Your task to perform on an android device: Set the phone to "Do not disturb". Image 0: 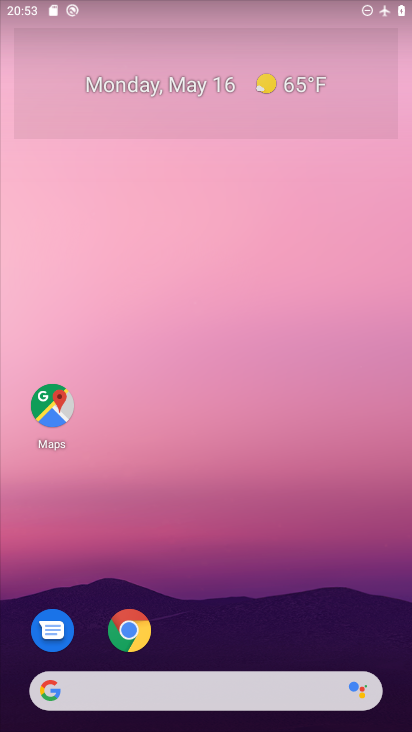
Step 0: drag from (210, 640) to (214, 126)
Your task to perform on an android device: Set the phone to "Do not disturb". Image 1: 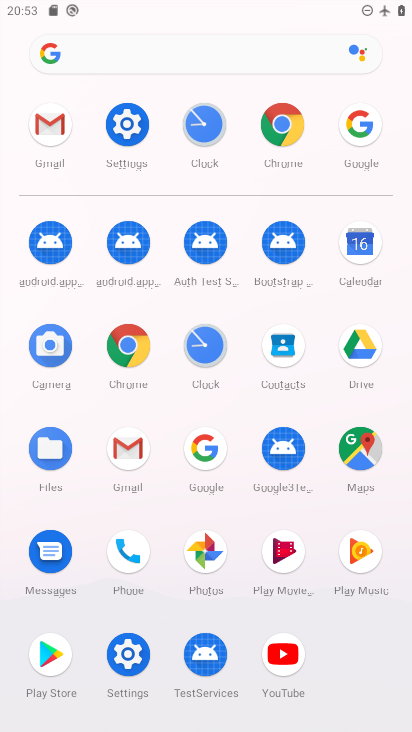
Step 1: click (140, 141)
Your task to perform on an android device: Set the phone to "Do not disturb". Image 2: 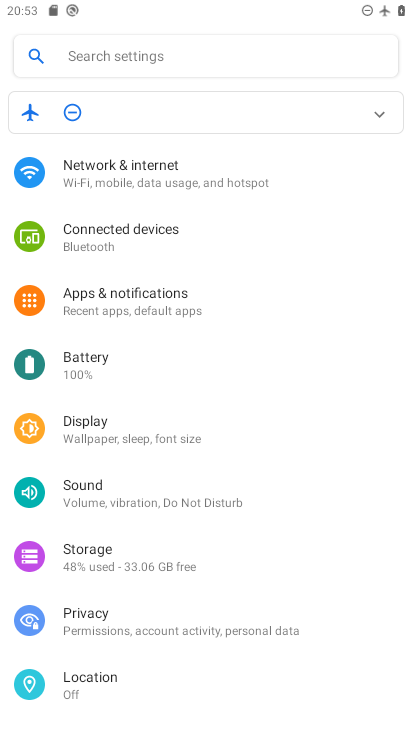
Step 2: click (117, 487)
Your task to perform on an android device: Set the phone to "Do not disturb". Image 3: 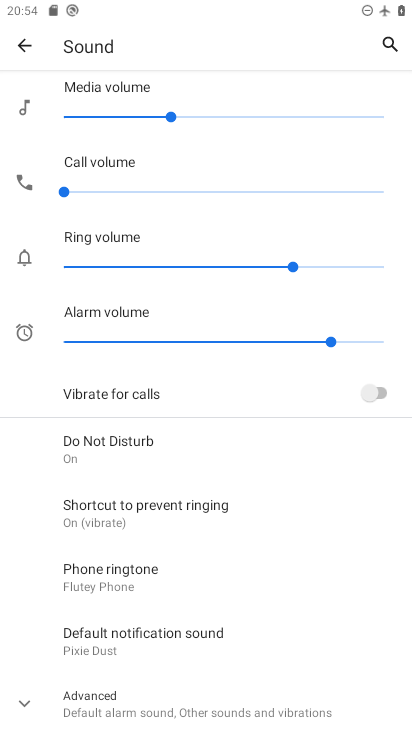
Step 3: click (122, 440)
Your task to perform on an android device: Set the phone to "Do not disturb". Image 4: 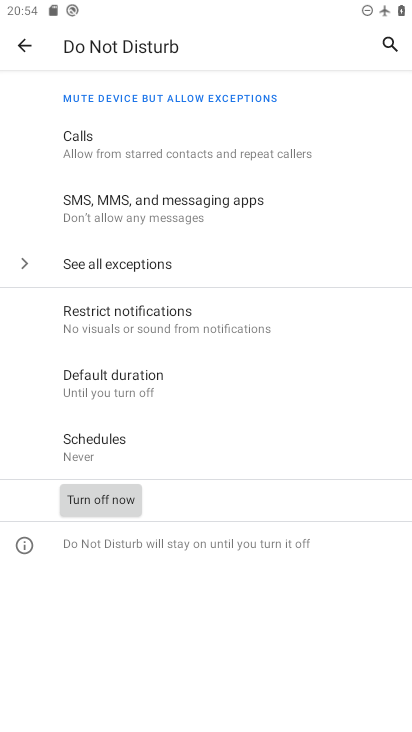
Step 4: task complete